Your task to perform on an android device: turn off location Image 0: 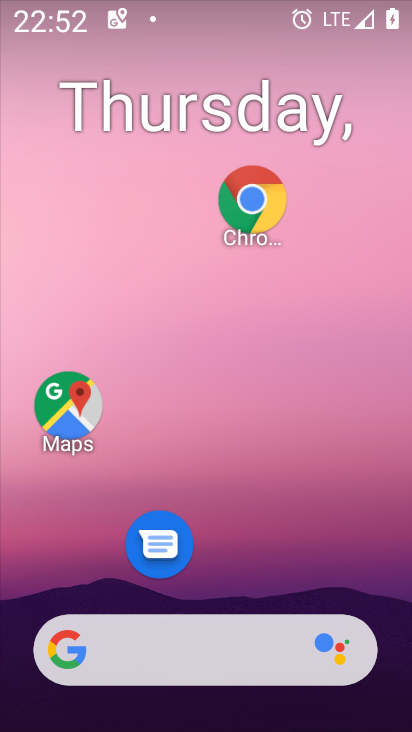
Step 0: drag from (96, 599) to (145, 69)
Your task to perform on an android device: turn off location Image 1: 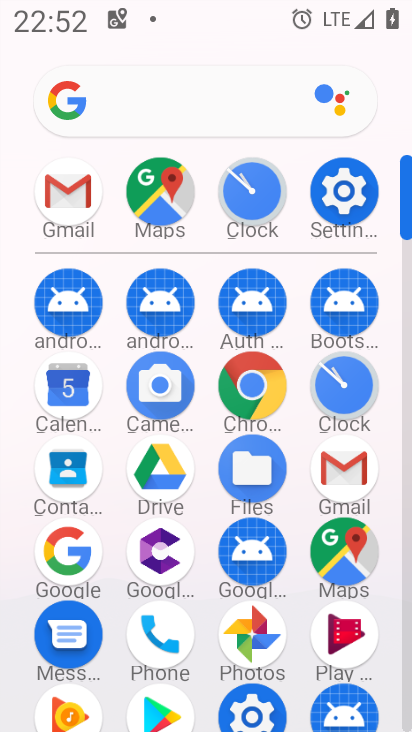
Step 1: click (328, 189)
Your task to perform on an android device: turn off location Image 2: 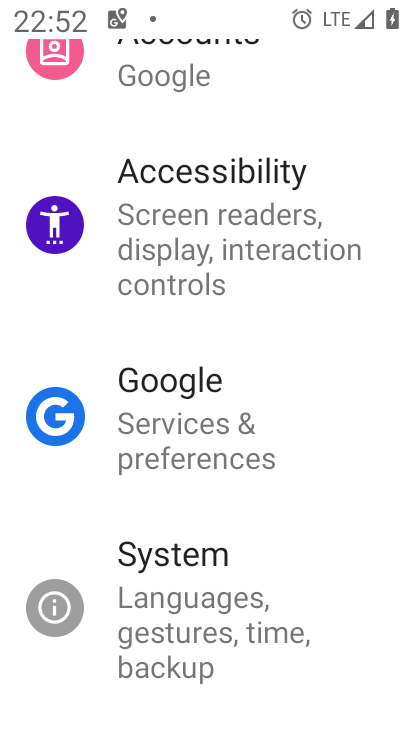
Step 2: drag from (180, 186) to (151, 654)
Your task to perform on an android device: turn off location Image 3: 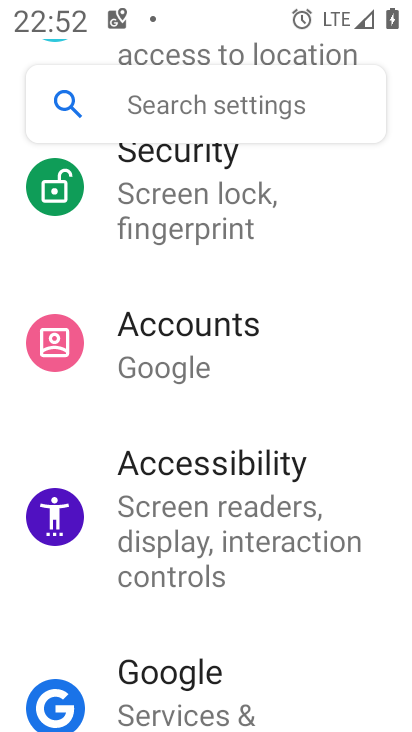
Step 3: drag from (162, 223) to (159, 720)
Your task to perform on an android device: turn off location Image 4: 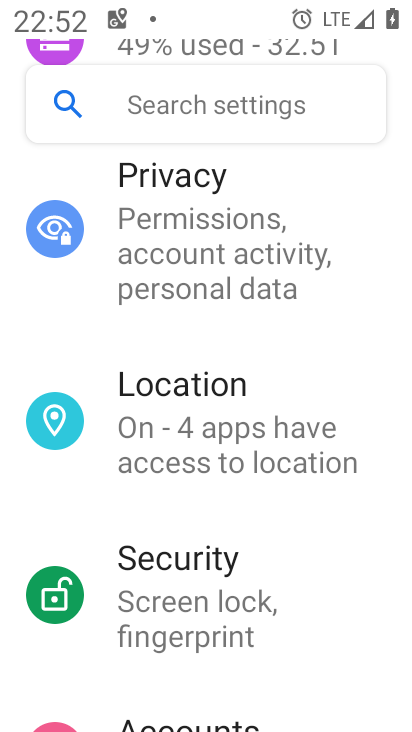
Step 4: click (119, 425)
Your task to perform on an android device: turn off location Image 5: 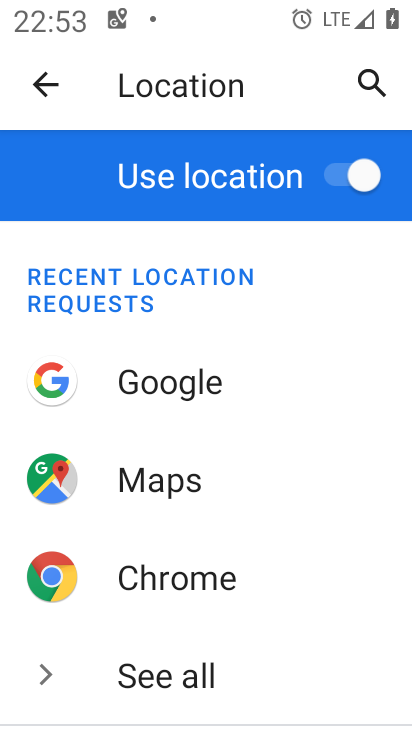
Step 5: drag from (79, 652) to (212, 184)
Your task to perform on an android device: turn off location Image 6: 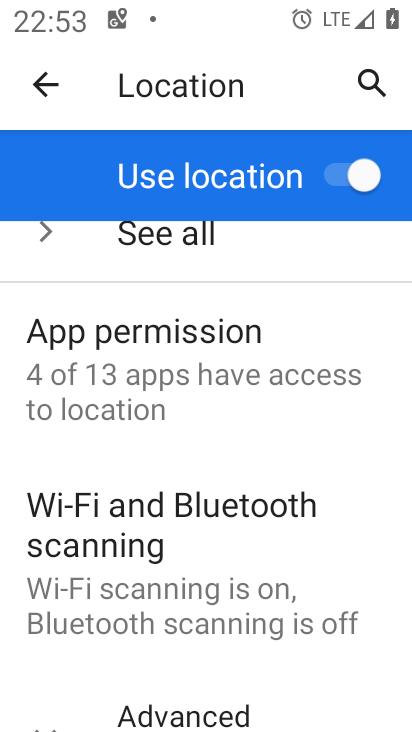
Step 6: click (344, 174)
Your task to perform on an android device: turn off location Image 7: 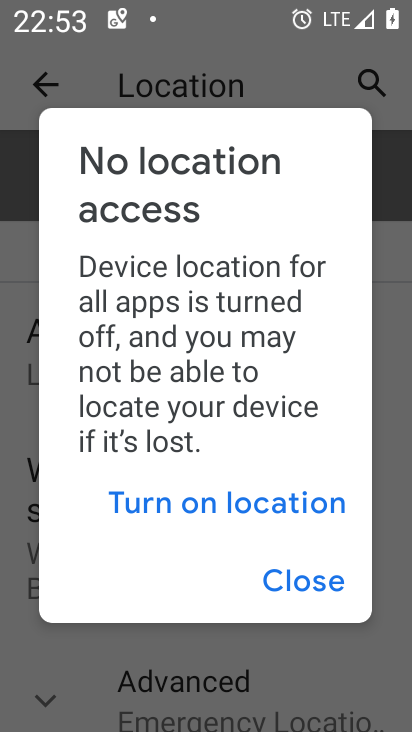
Step 7: task complete